Your task to perform on an android device: Go to CNN.com Image 0: 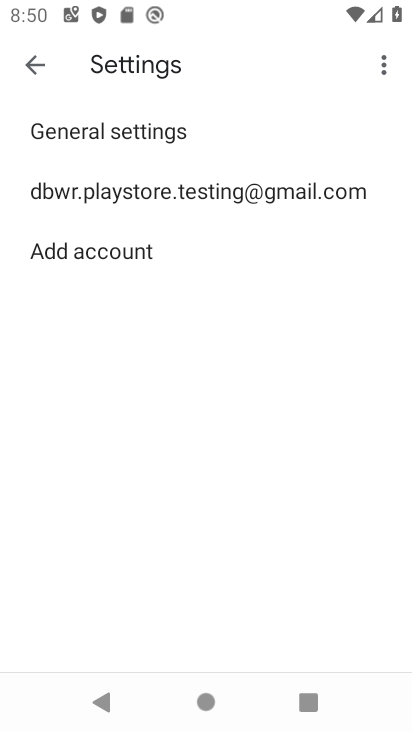
Step 0: press home button
Your task to perform on an android device: Go to CNN.com Image 1: 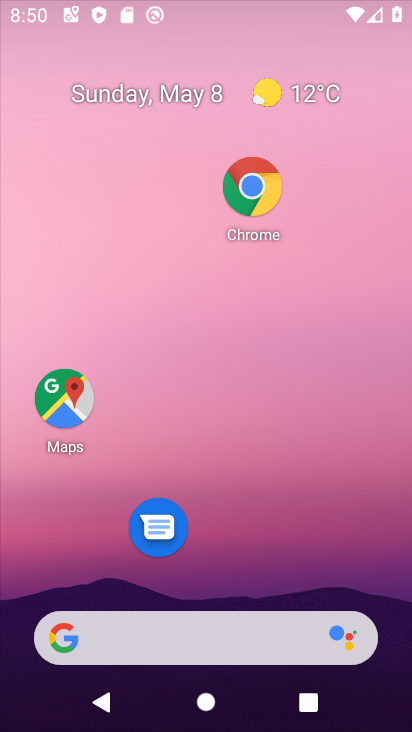
Step 1: drag from (250, 566) to (230, 340)
Your task to perform on an android device: Go to CNN.com Image 2: 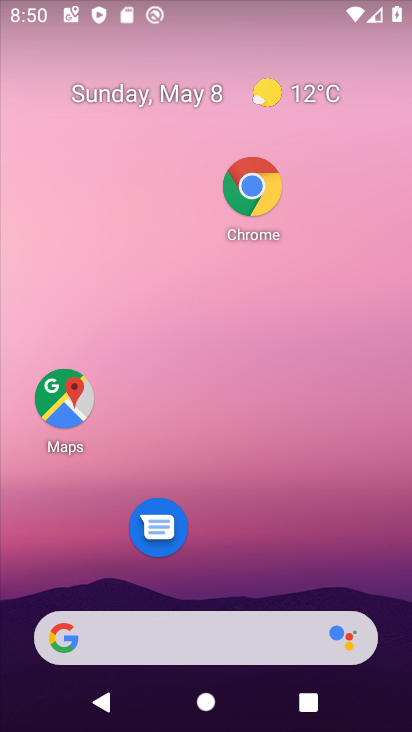
Step 2: drag from (249, 523) to (301, 229)
Your task to perform on an android device: Go to CNN.com Image 3: 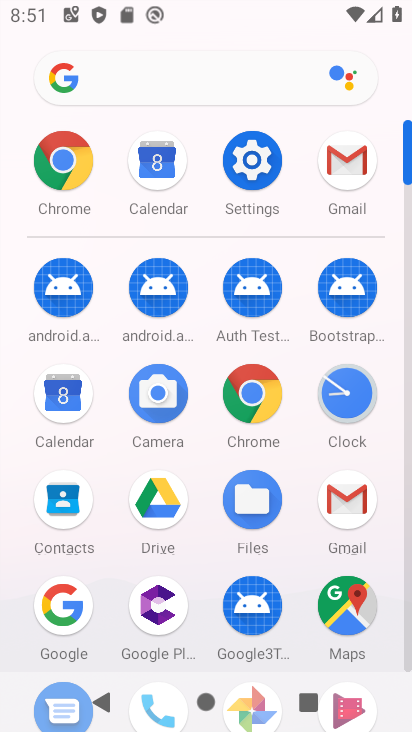
Step 3: click (72, 151)
Your task to perform on an android device: Go to CNN.com Image 4: 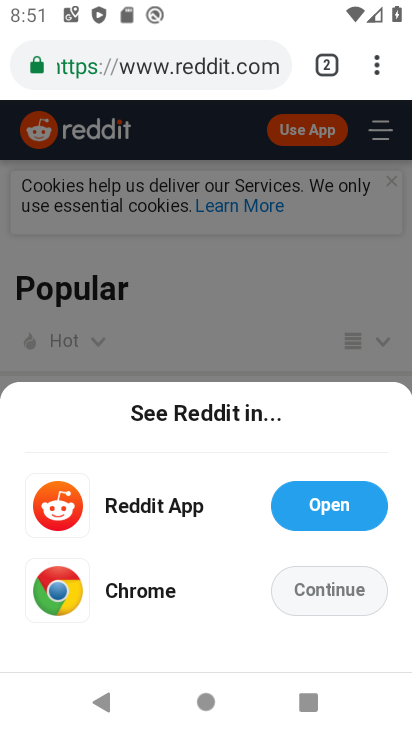
Step 4: click (365, 57)
Your task to perform on an android device: Go to CNN.com Image 5: 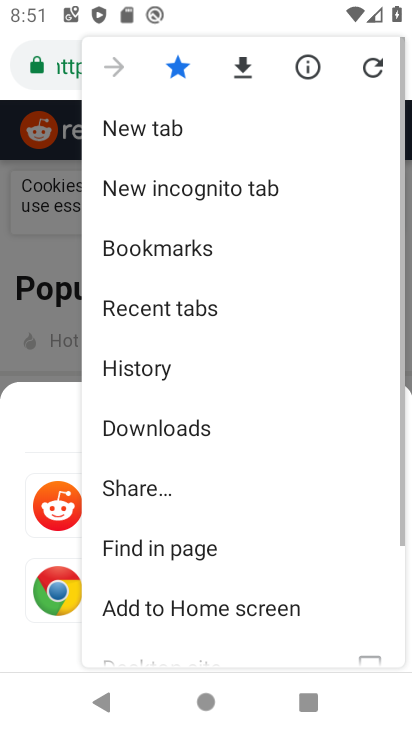
Step 5: click (180, 130)
Your task to perform on an android device: Go to CNN.com Image 6: 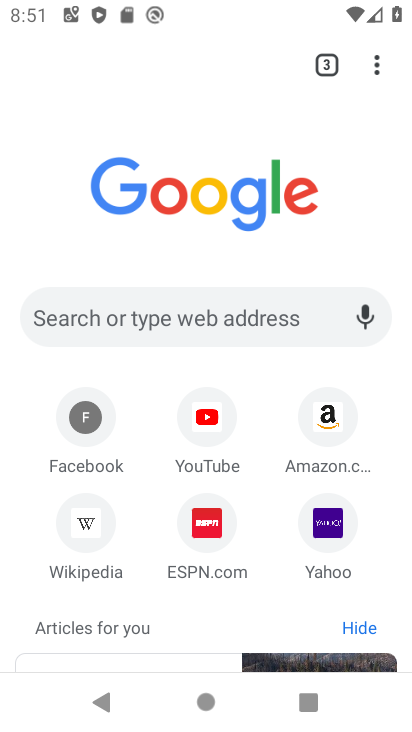
Step 6: click (161, 306)
Your task to perform on an android device: Go to CNN.com Image 7: 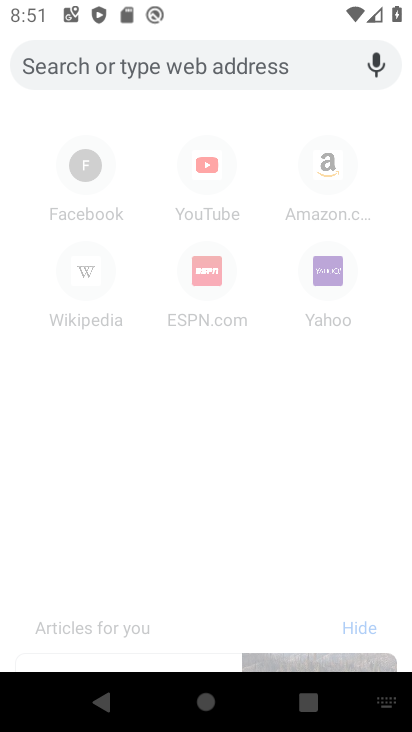
Step 7: type "CNN.com"
Your task to perform on an android device: Go to CNN.com Image 8: 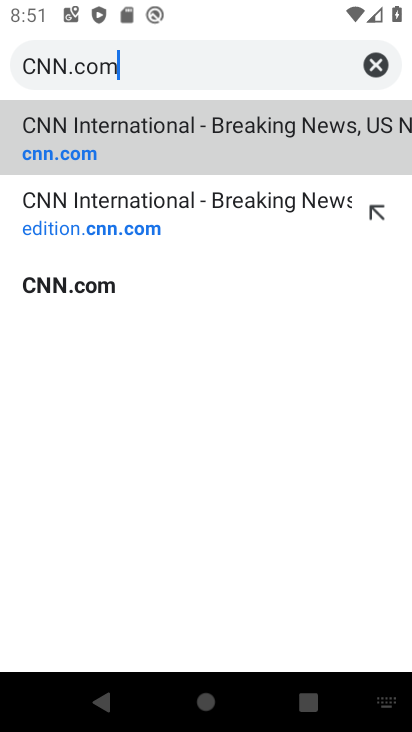
Step 8: click (113, 149)
Your task to perform on an android device: Go to CNN.com Image 9: 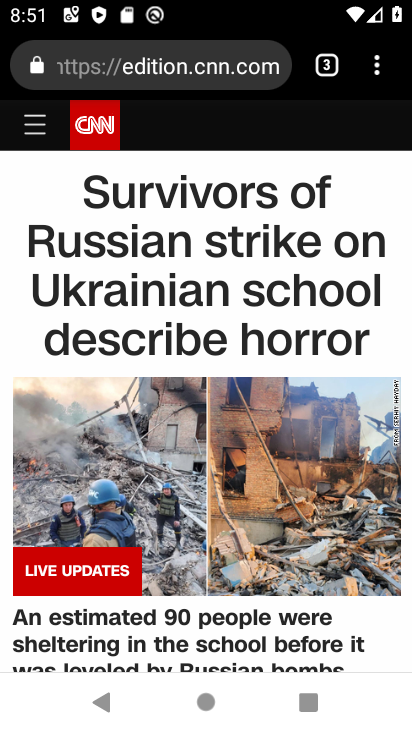
Step 9: task complete